Your task to perform on an android device: Do I have any events tomorrow? Image 0: 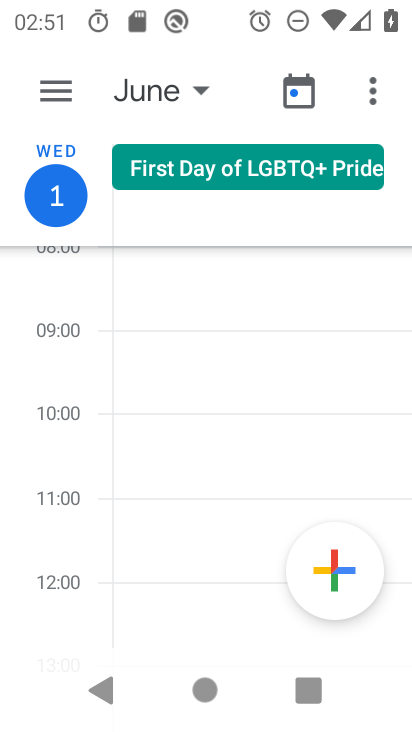
Step 0: click (184, 98)
Your task to perform on an android device: Do I have any events tomorrow? Image 1: 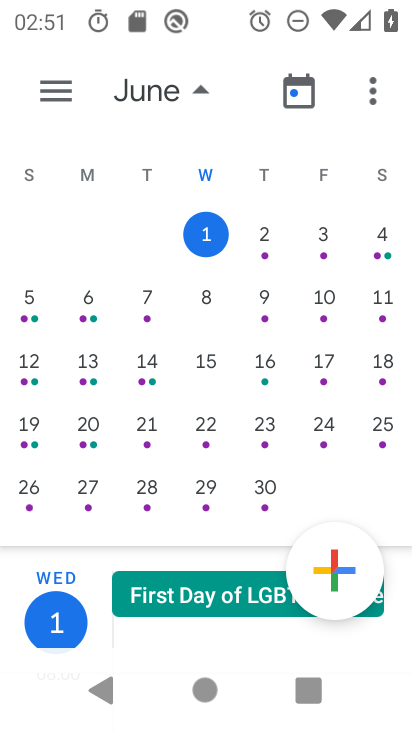
Step 1: click (272, 230)
Your task to perform on an android device: Do I have any events tomorrow? Image 2: 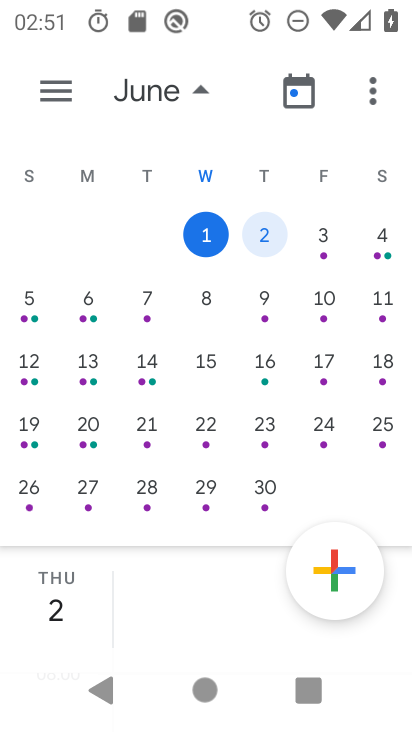
Step 2: click (282, 231)
Your task to perform on an android device: Do I have any events tomorrow? Image 3: 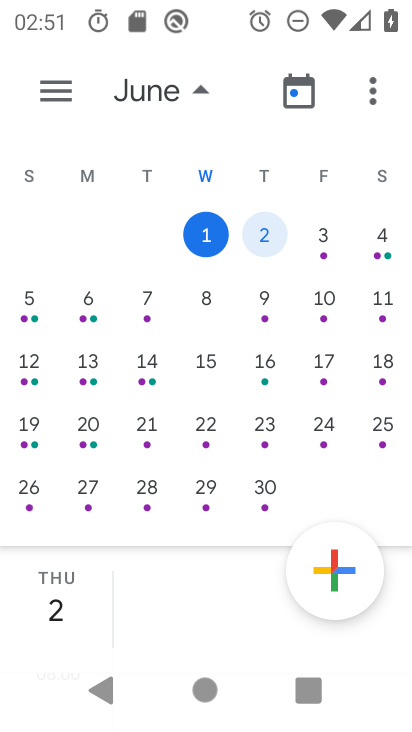
Step 3: click (77, 603)
Your task to perform on an android device: Do I have any events tomorrow? Image 4: 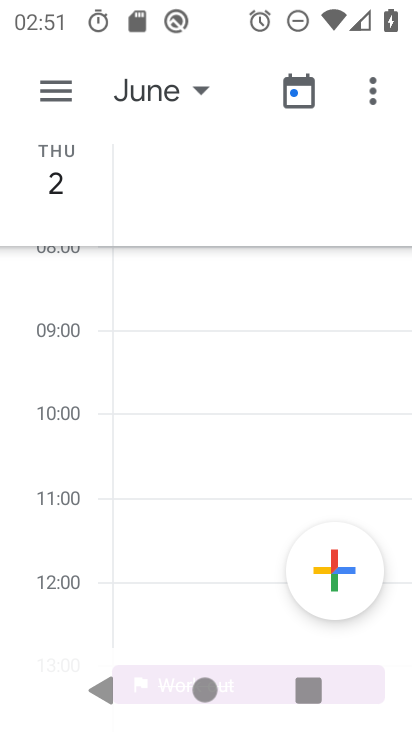
Step 4: task complete